Your task to perform on an android device: toggle wifi Image 0: 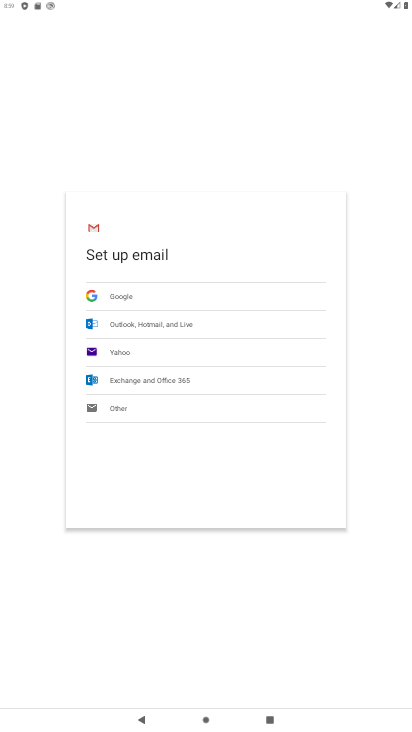
Step 0: press home button
Your task to perform on an android device: toggle wifi Image 1: 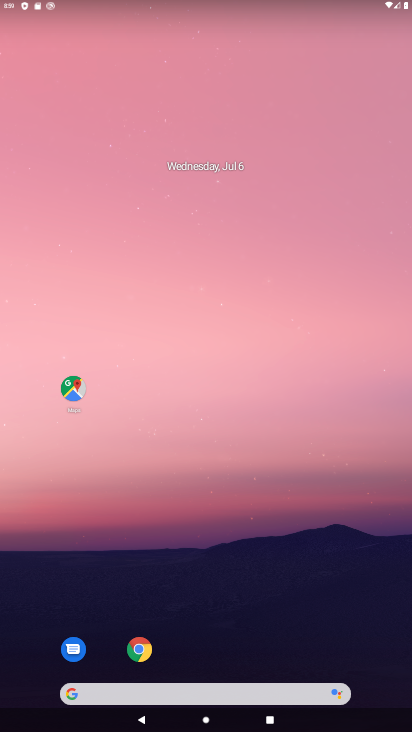
Step 1: drag from (218, 664) to (154, 0)
Your task to perform on an android device: toggle wifi Image 2: 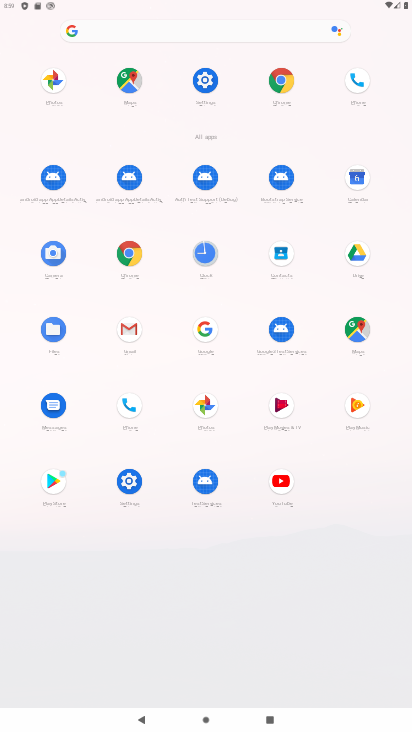
Step 2: click (208, 83)
Your task to perform on an android device: toggle wifi Image 3: 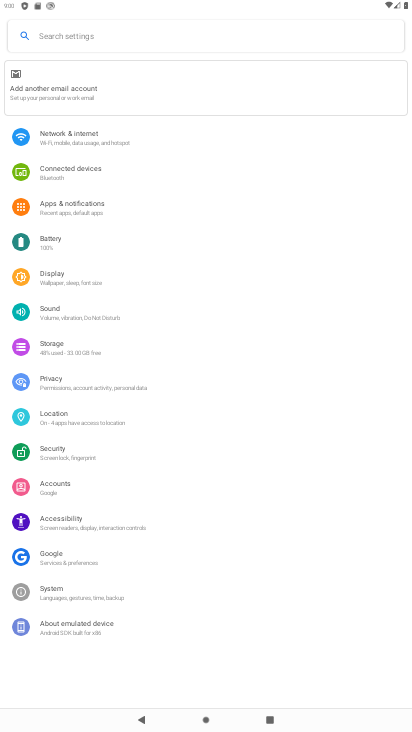
Step 3: click (67, 140)
Your task to perform on an android device: toggle wifi Image 4: 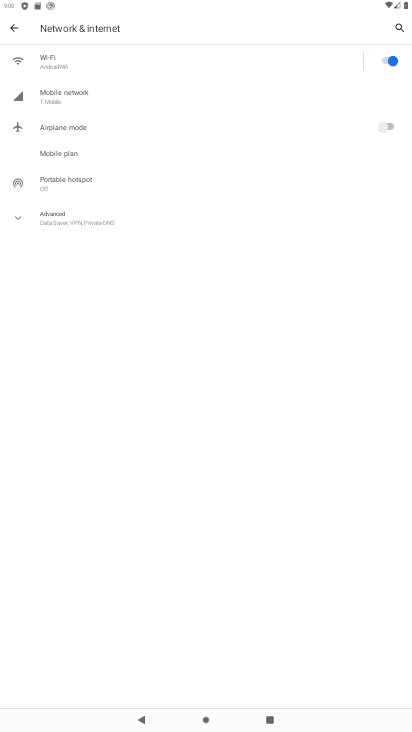
Step 4: click (57, 59)
Your task to perform on an android device: toggle wifi Image 5: 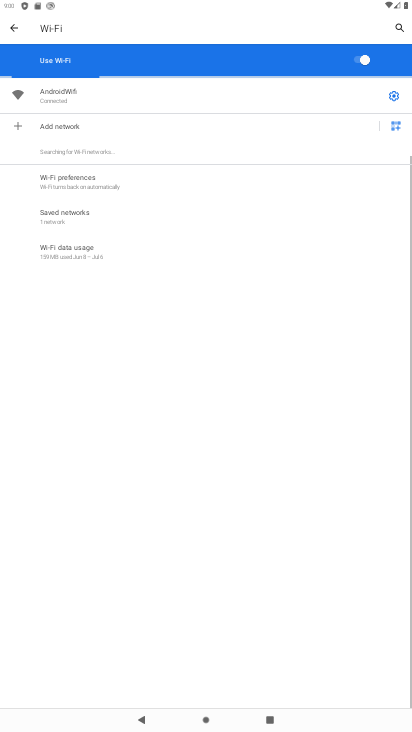
Step 5: click (351, 55)
Your task to perform on an android device: toggle wifi Image 6: 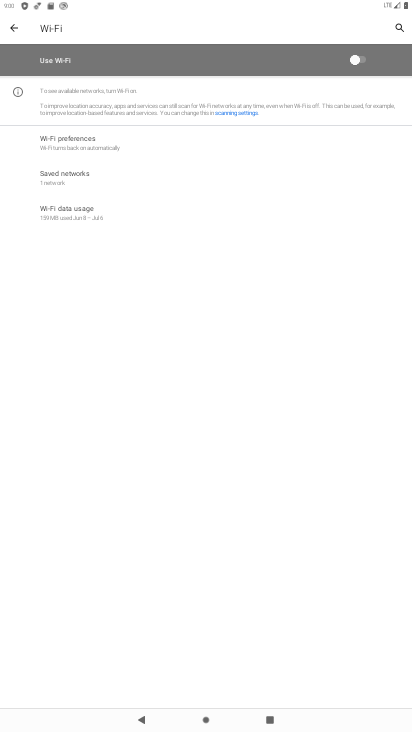
Step 6: task complete